Your task to perform on an android device: delete browsing data in the chrome app Image 0: 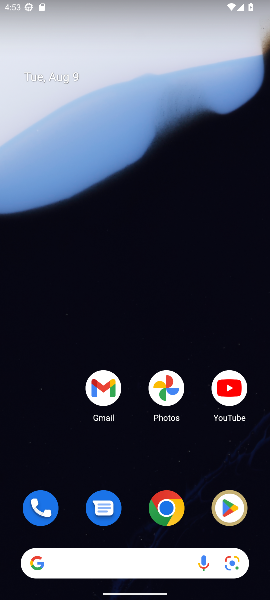
Step 0: click (169, 505)
Your task to perform on an android device: delete browsing data in the chrome app Image 1: 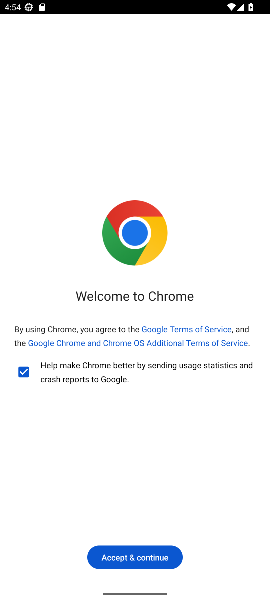
Step 1: click (138, 552)
Your task to perform on an android device: delete browsing data in the chrome app Image 2: 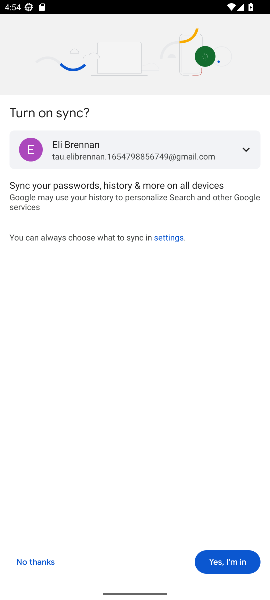
Step 2: click (233, 556)
Your task to perform on an android device: delete browsing data in the chrome app Image 3: 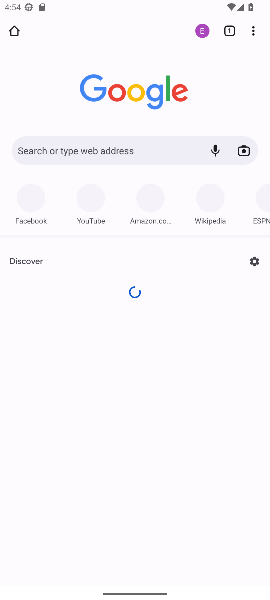
Step 3: click (248, 30)
Your task to perform on an android device: delete browsing data in the chrome app Image 4: 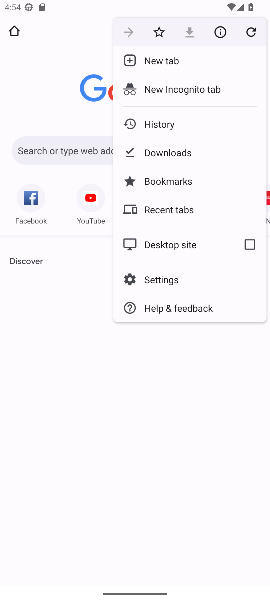
Step 4: click (152, 120)
Your task to perform on an android device: delete browsing data in the chrome app Image 5: 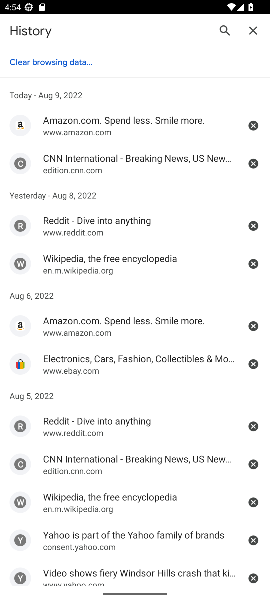
Step 5: click (53, 59)
Your task to perform on an android device: delete browsing data in the chrome app Image 6: 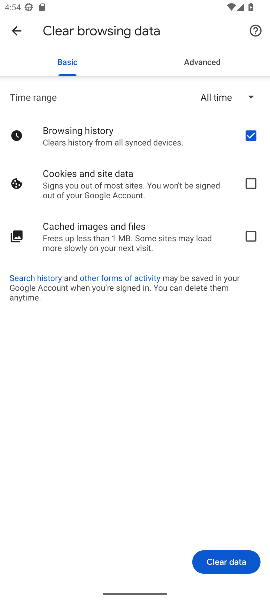
Step 6: click (253, 181)
Your task to perform on an android device: delete browsing data in the chrome app Image 7: 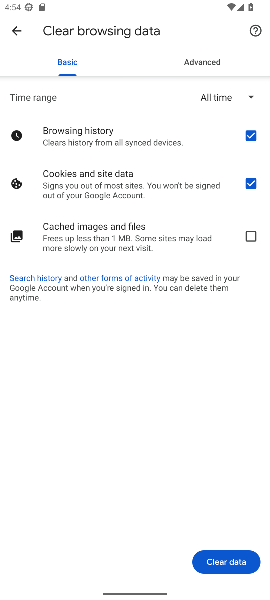
Step 7: click (250, 238)
Your task to perform on an android device: delete browsing data in the chrome app Image 8: 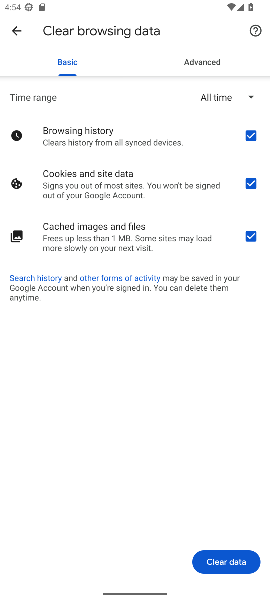
Step 8: click (222, 566)
Your task to perform on an android device: delete browsing data in the chrome app Image 9: 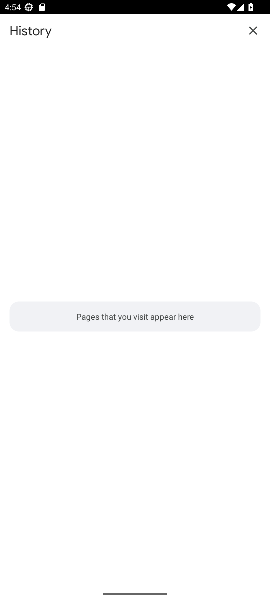
Step 9: task complete